Your task to perform on an android device: check android version Image 0: 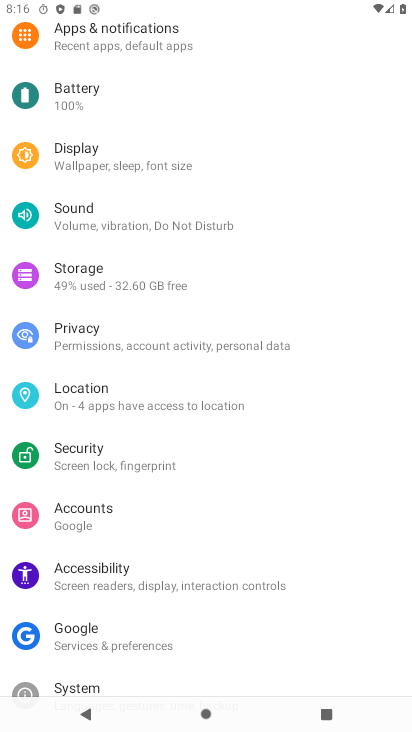
Step 0: press home button
Your task to perform on an android device: check android version Image 1: 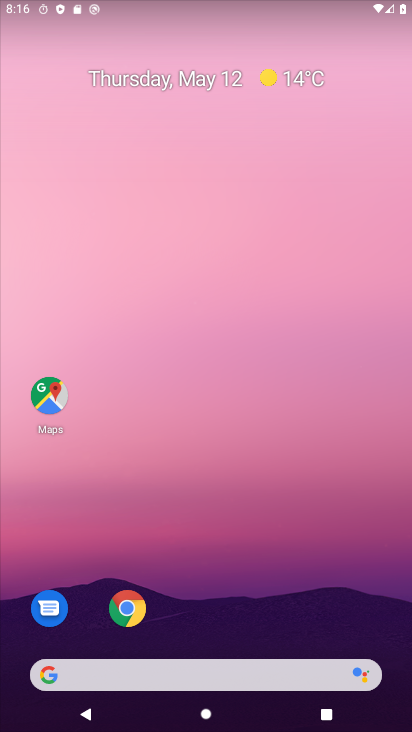
Step 1: drag from (253, 596) to (145, 203)
Your task to perform on an android device: check android version Image 2: 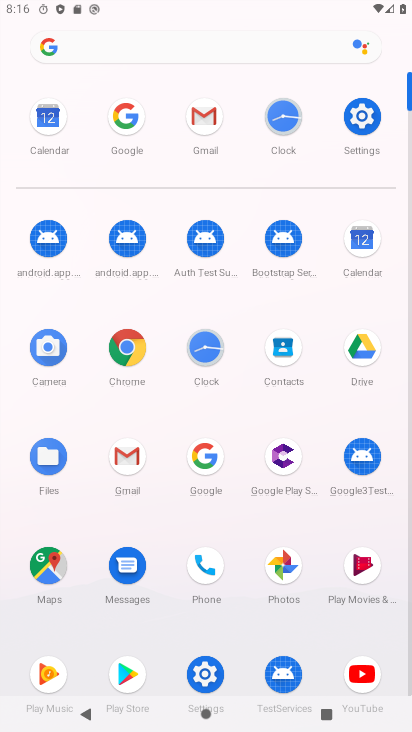
Step 2: click (373, 117)
Your task to perform on an android device: check android version Image 3: 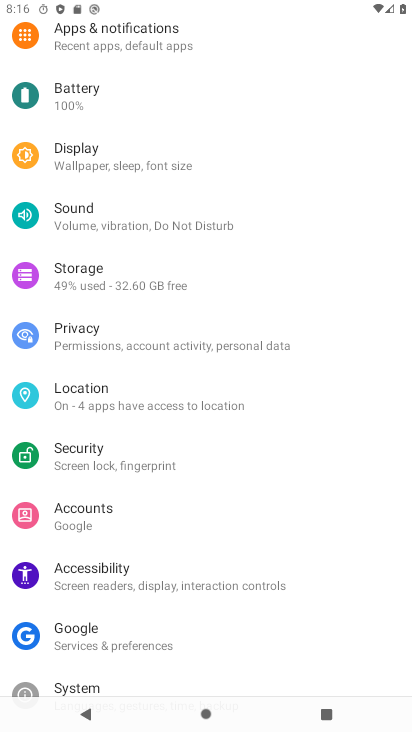
Step 3: drag from (306, 254) to (317, 642)
Your task to perform on an android device: check android version Image 4: 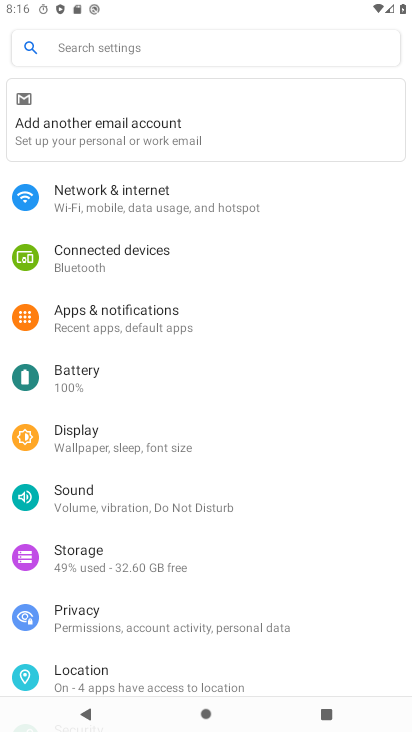
Step 4: drag from (291, 547) to (290, 280)
Your task to perform on an android device: check android version Image 5: 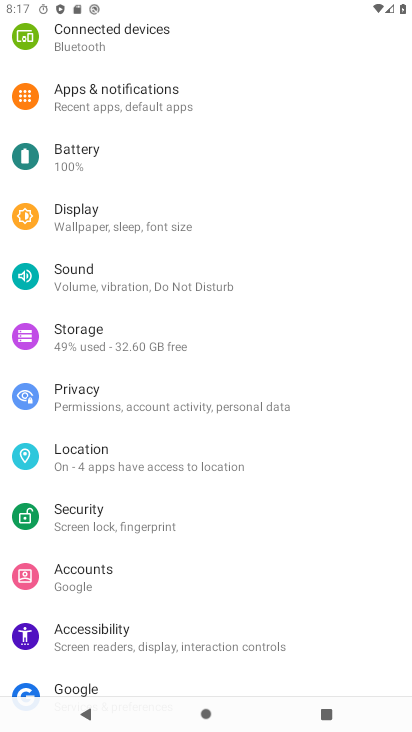
Step 5: drag from (282, 650) to (309, 168)
Your task to perform on an android device: check android version Image 6: 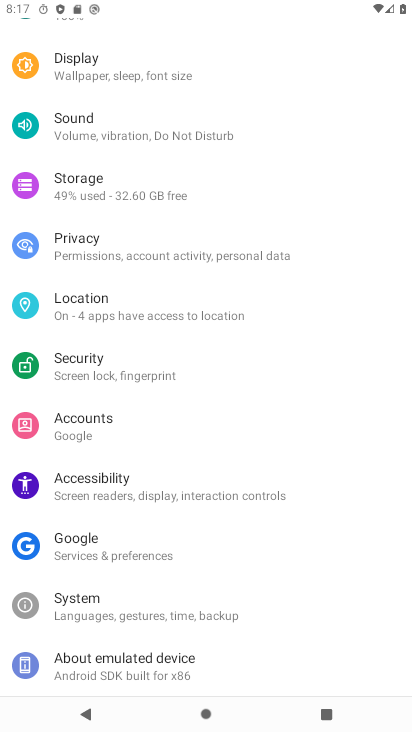
Step 6: click (163, 662)
Your task to perform on an android device: check android version Image 7: 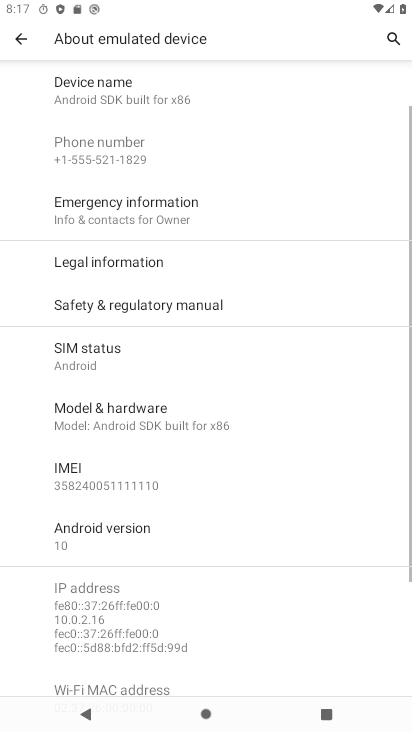
Step 7: click (151, 537)
Your task to perform on an android device: check android version Image 8: 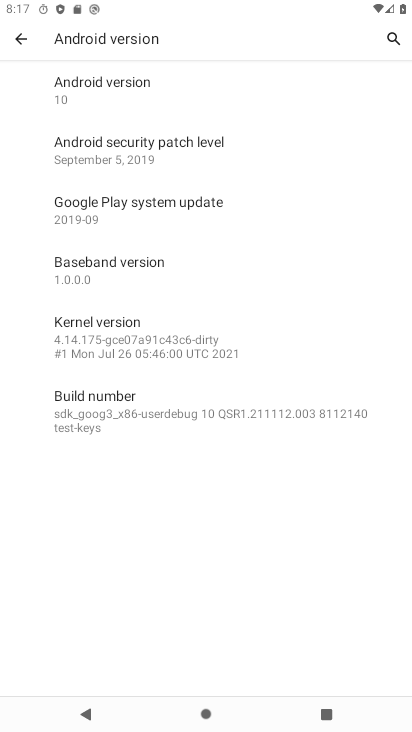
Step 8: drag from (293, 367) to (323, 531)
Your task to perform on an android device: check android version Image 9: 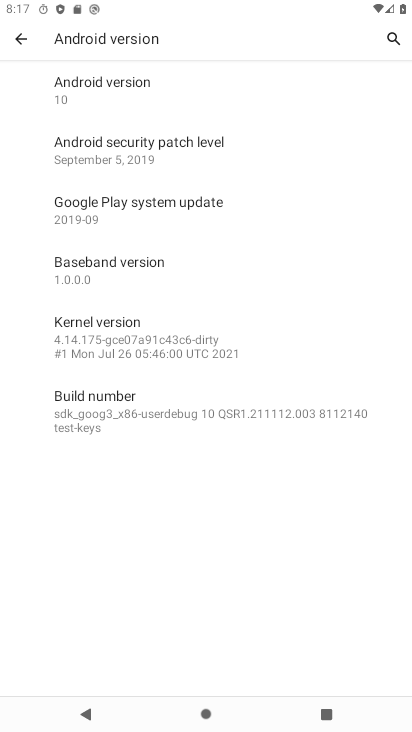
Step 9: click (333, 75)
Your task to perform on an android device: check android version Image 10: 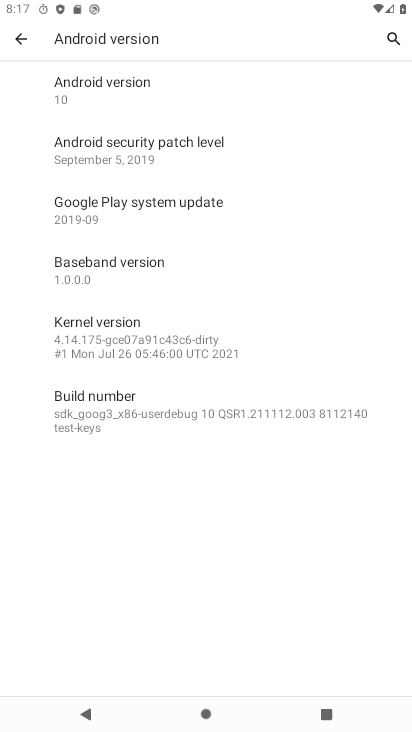
Step 10: click (333, 77)
Your task to perform on an android device: check android version Image 11: 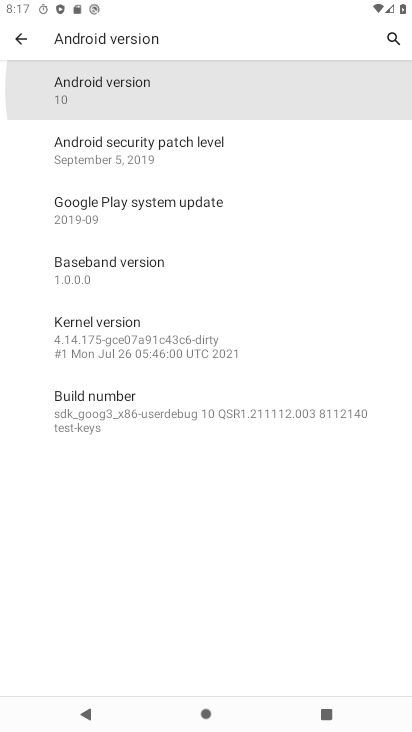
Step 11: click (333, 78)
Your task to perform on an android device: check android version Image 12: 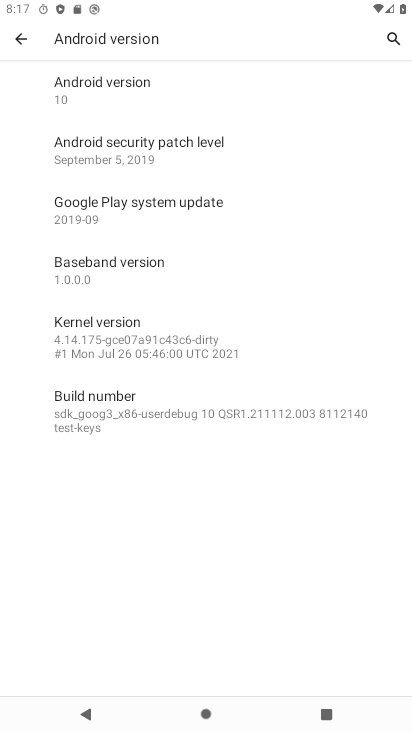
Step 12: task complete